Your task to perform on an android device: Add "logitech g502" to the cart on amazon Image 0: 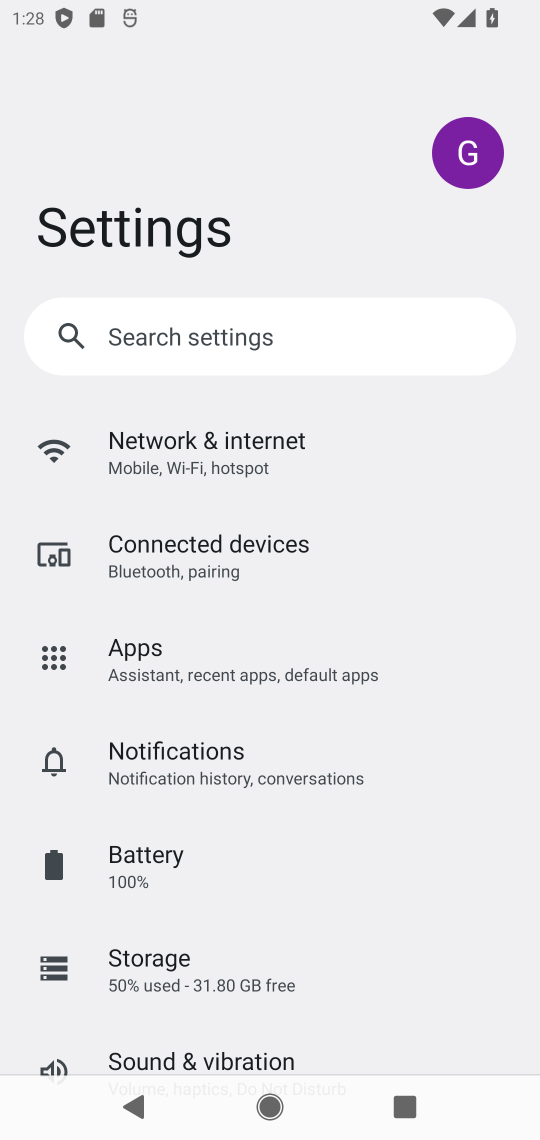
Step 0: press home button
Your task to perform on an android device: Add "logitech g502" to the cart on amazon Image 1: 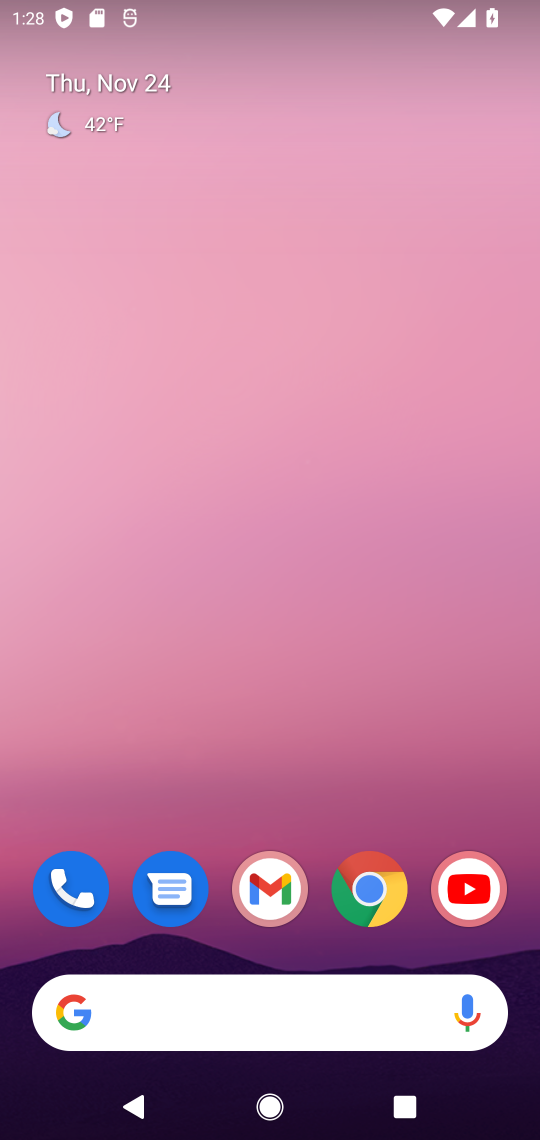
Step 1: click (375, 894)
Your task to perform on an android device: Add "logitech g502" to the cart on amazon Image 2: 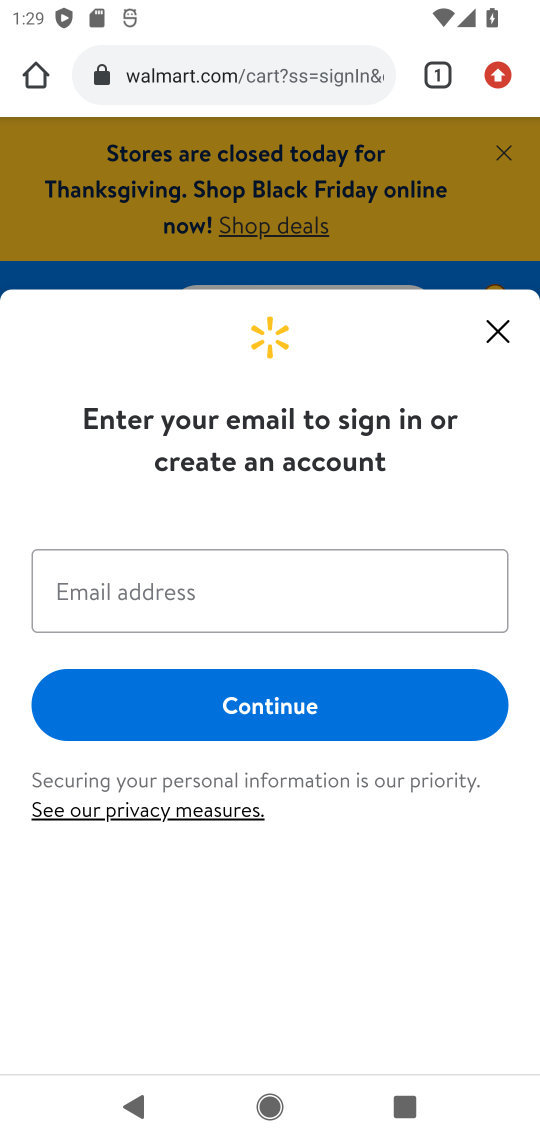
Step 2: click (164, 80)
Your task to perform on an android device: Add "logitech g502" to the cart on amazon Image 3: 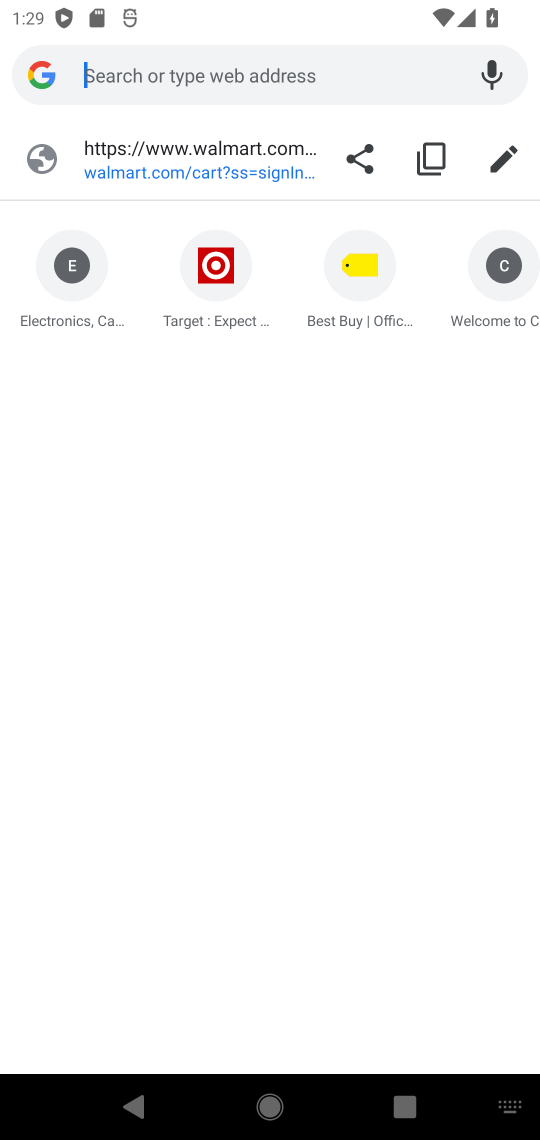
Step 3: type "amazon.com"
Your task to perform on an android device: Add "logitech g502" to the cart on amazon Image 4: 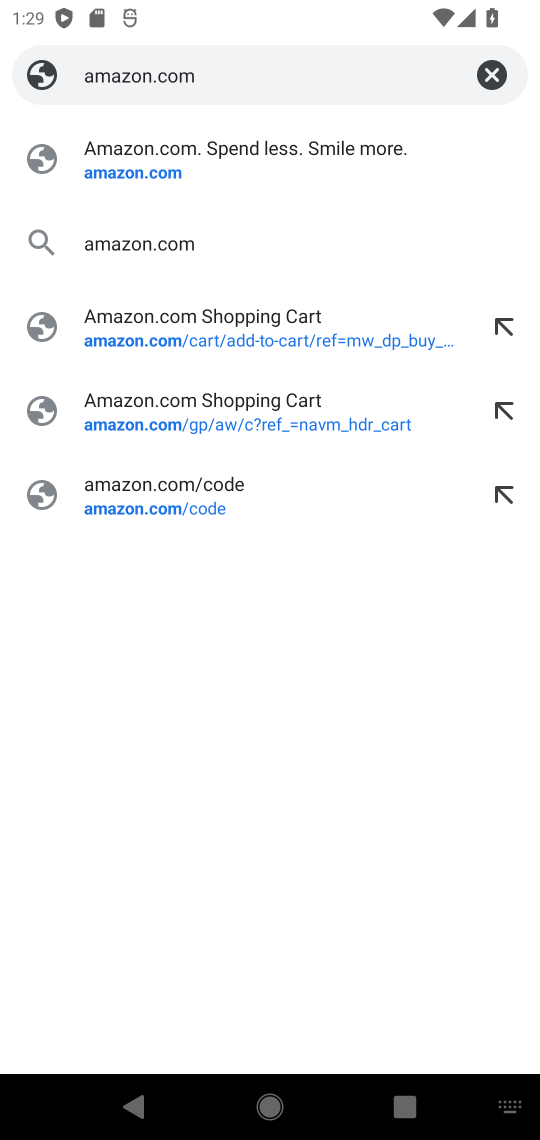
Step 4: click (87, 171)
Your task to perform on an android device: Add "logitech g502" to the cart on amazon Image 5: 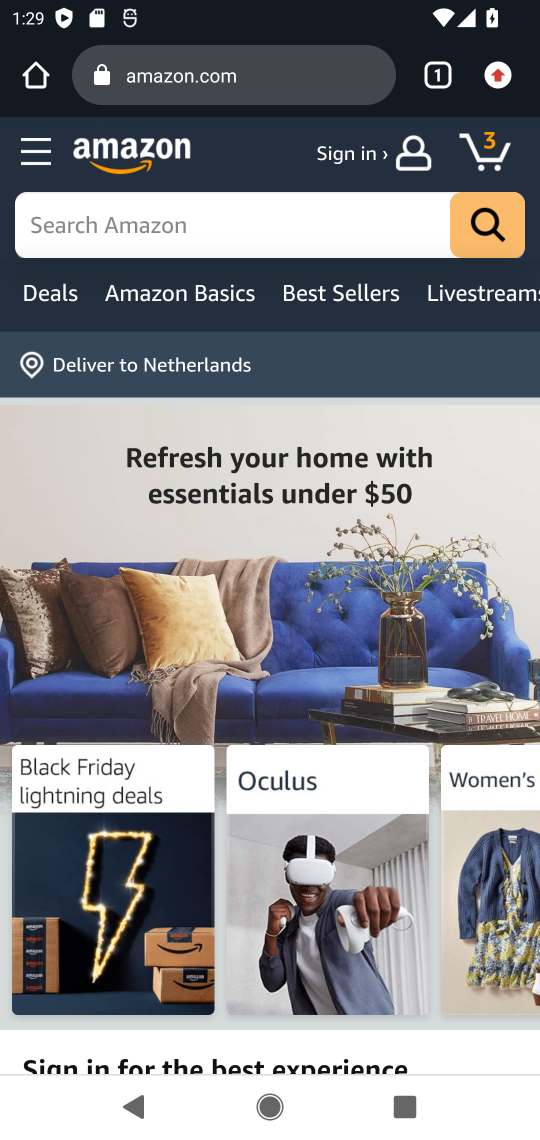
Step 5: click (60, 229)
Your task to perform on an android device: Add "logitech g502" to the cart on amazon Image 6: 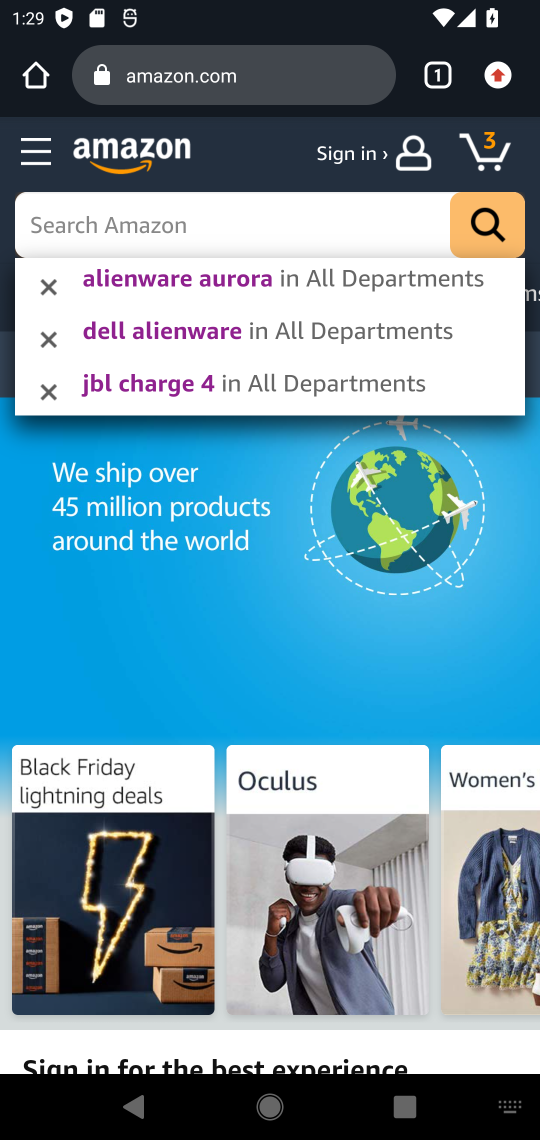
Step 6: type "logitech g502"
Your task to perform on an android device: Add "logitech g502" to the cart on amazon Image 7: 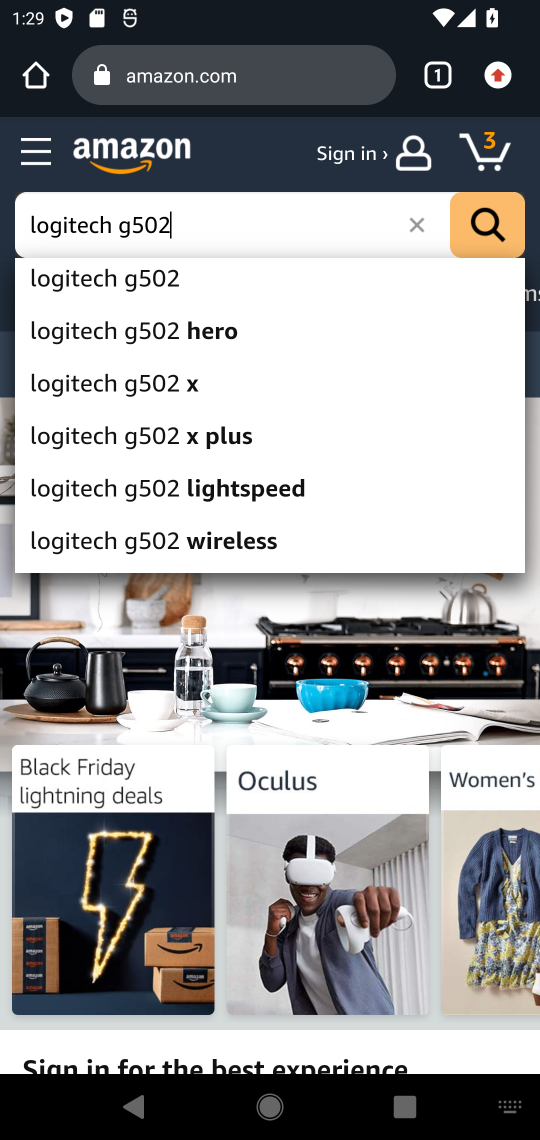
Step 7: click (93, 283)
Your task to perform on an android device: Add "logitech g502" to the cart on amazon Image 8: 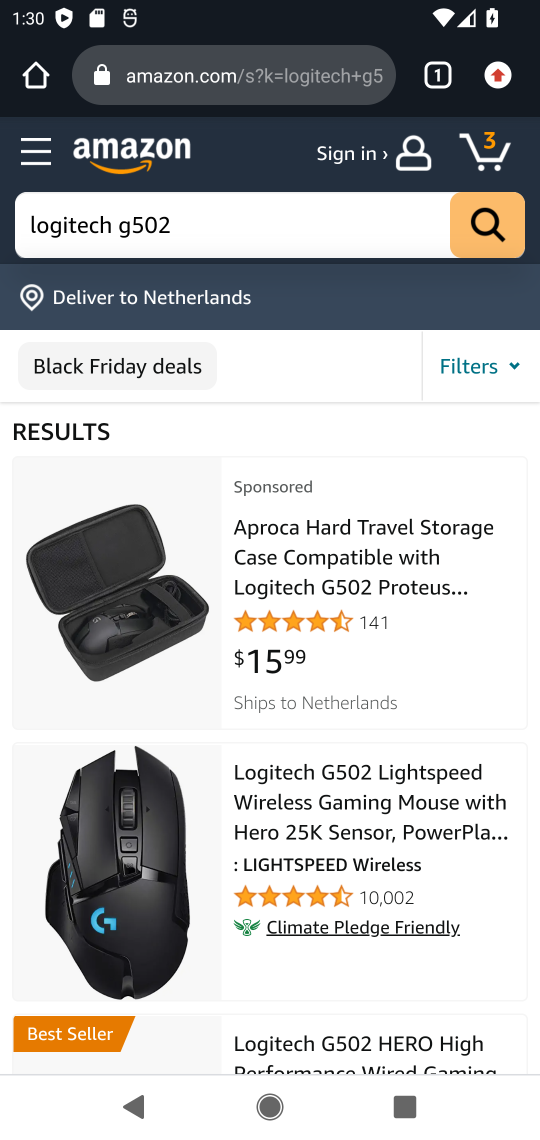
Step 8: click (163, 630)
Your task to perform on an android device: Add "logitech g502" to the cart on amazon Image 9: 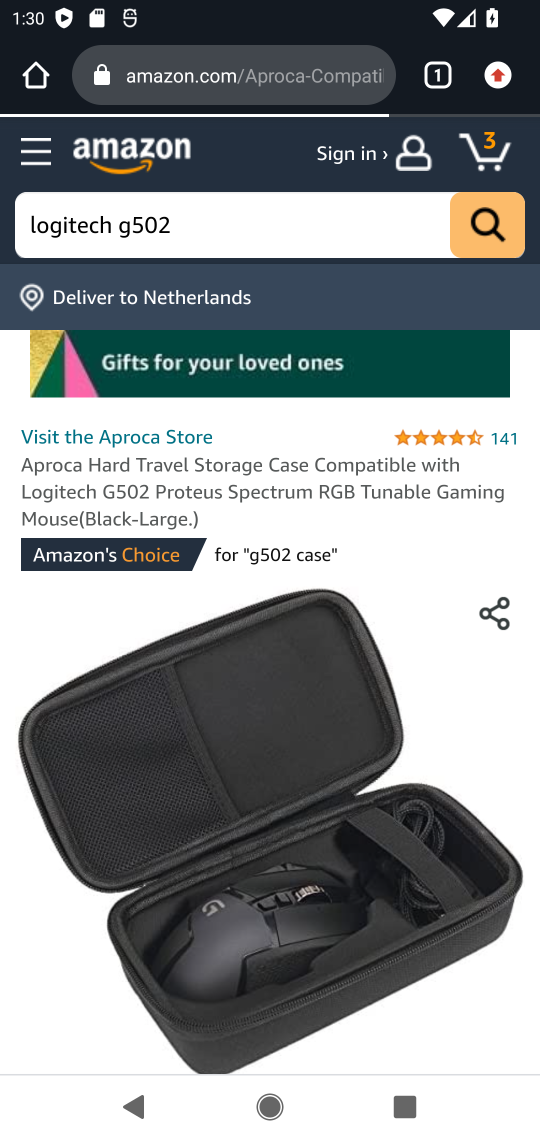
Step 9: drag from (169, 716) to (198, 387)
Your task to perform on an android device: Add "logitech g502" to the cart on amazon Image 10: 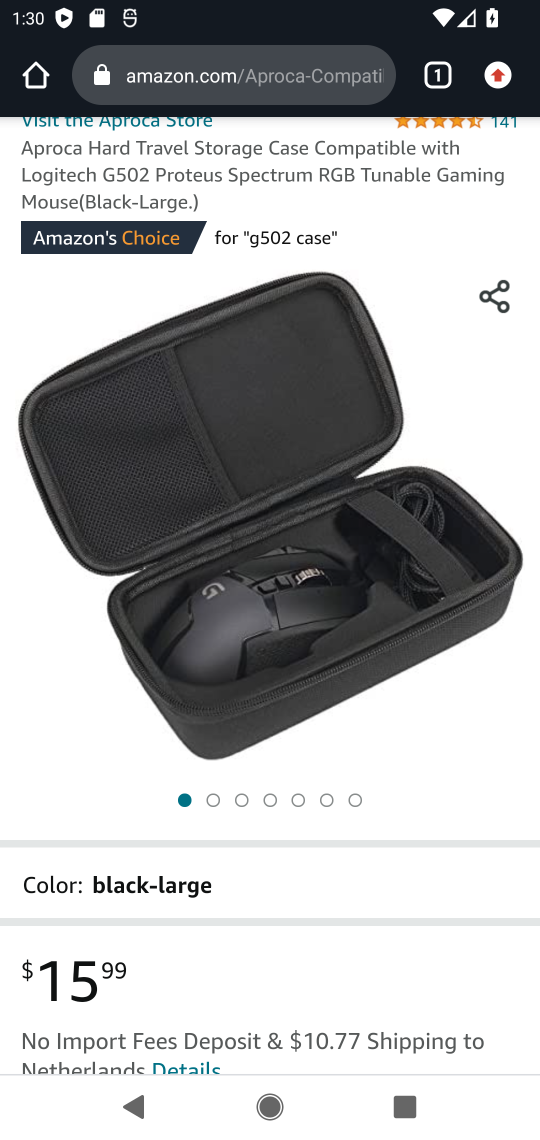
Step 10: drag from (202, 744) to (218, 314)
Your task to perform on an android device: Add "logitech g502" to the cart on amazon Image 11: 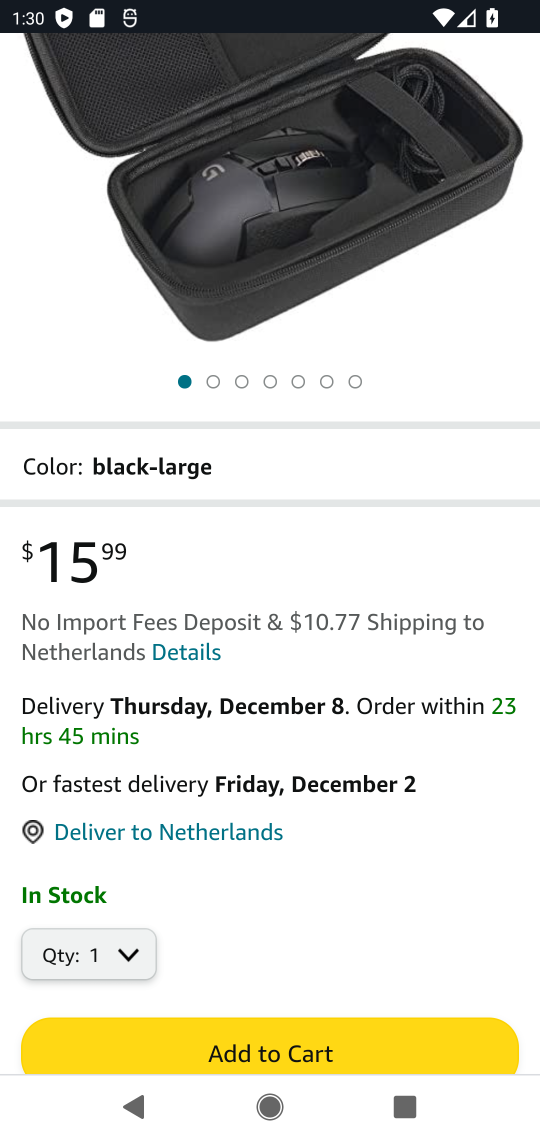
Step 11: drag from (192, 746) to (230, 405)
Your task to perform on an android device: Add "logitech g502" to the cart on amazon Image 12: 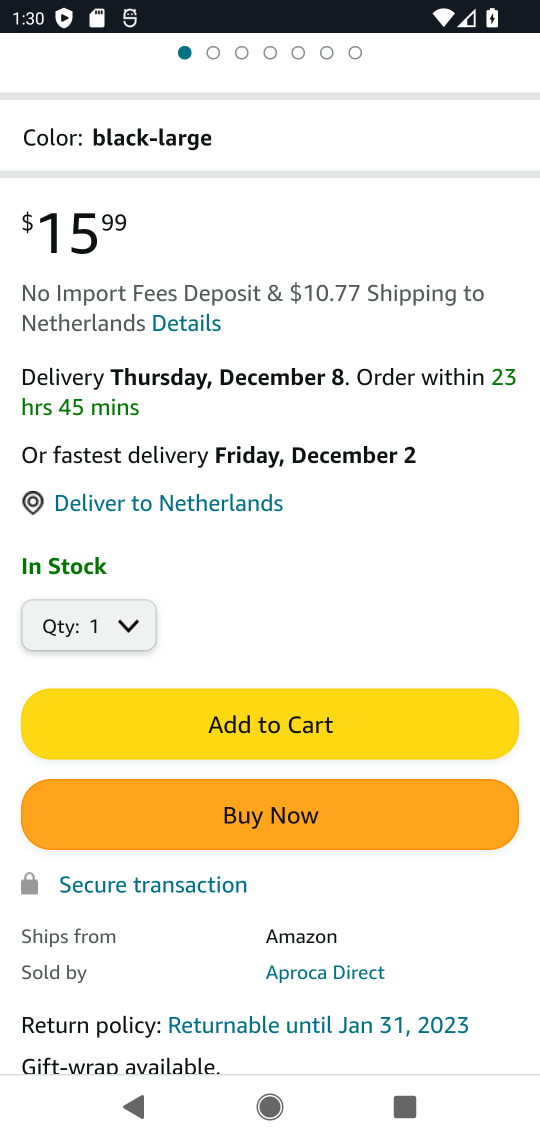
Step 12: click (243, 722)
Your task to perform on an android device: Add "logitech g502" to the cart on amazon Image 13: 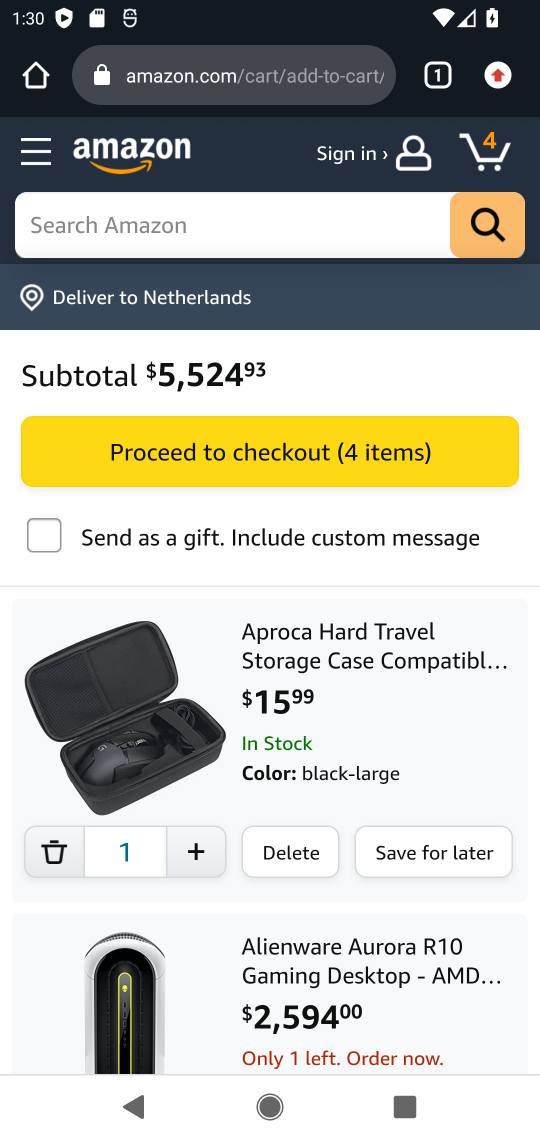
Step 13: task complete